Your task to perform on an android device: turn on wifi Image 0: 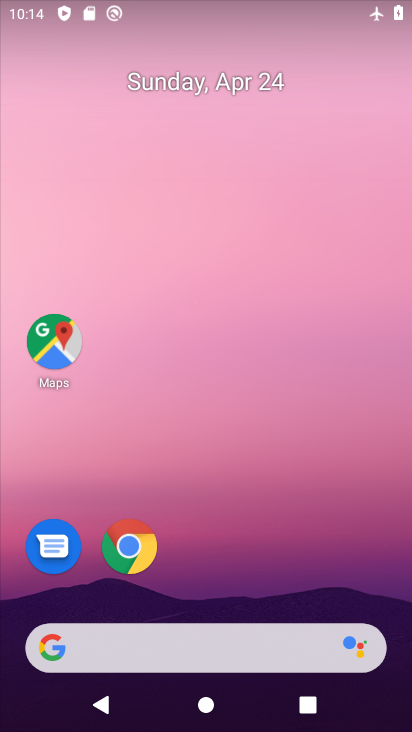
Step 0: drag from (348, 560) to (354, 2)
Your task to perform on an android device: turn on wifi Image 1: 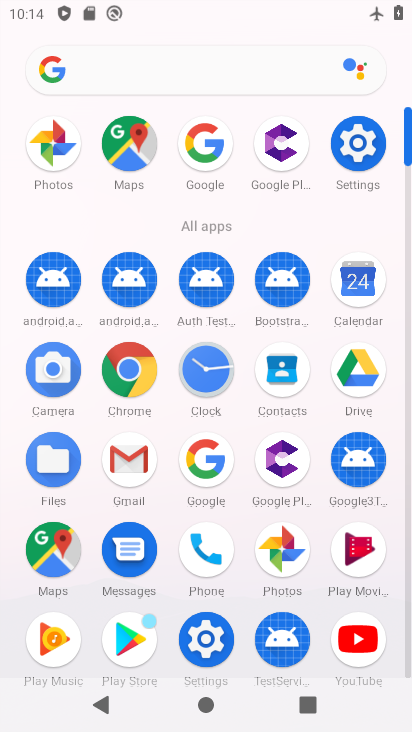
Step 1: click (355, 142)
Your task to perform on an android device: turn on wifi Image 2: 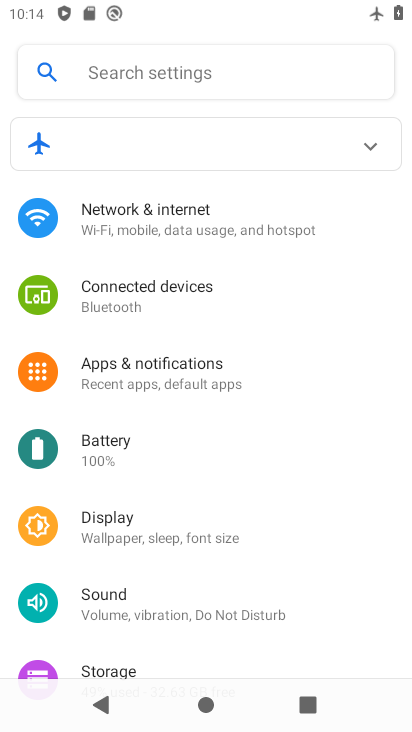
Step 2: click (170, 224)
Your task to perform on an android device: turn on wifi Image 3: 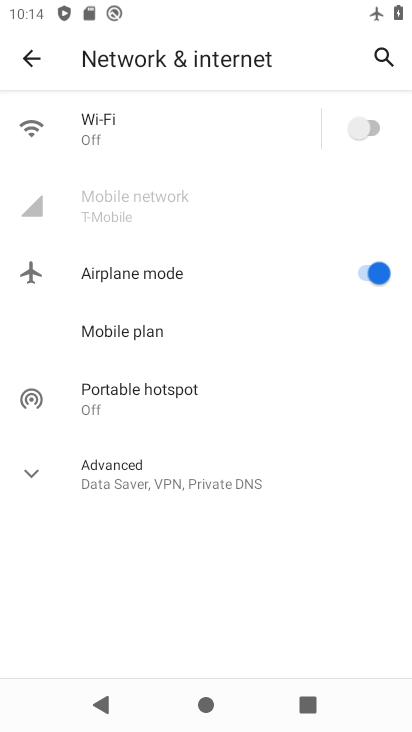
Step 3: click (360, 129)
Your task to perform on an android device: turn on wifi Image 4: 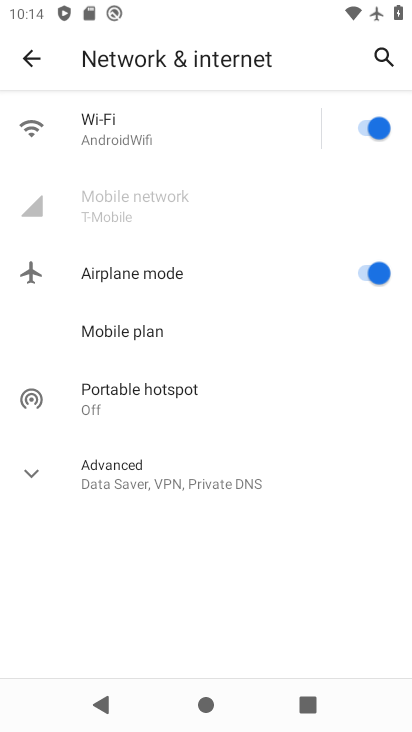
Step 4: task complete